Your task to perform on an android device: Open the phone app and click the voicemail tab. Image 0: 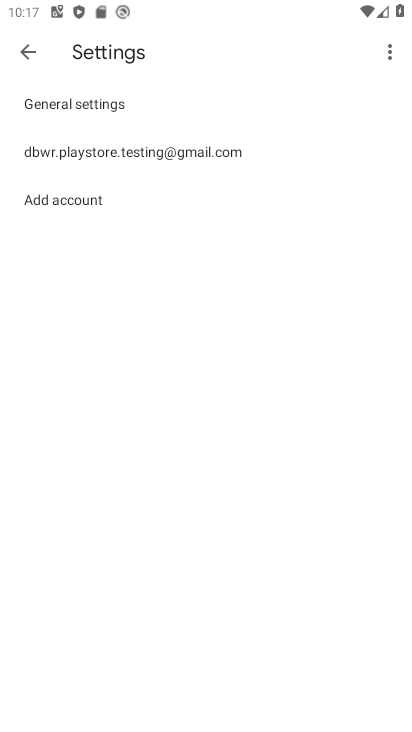
Step 0: press home button
Your task to perform on an android device: Open the phone app and click the voicemail tab. Image 1: 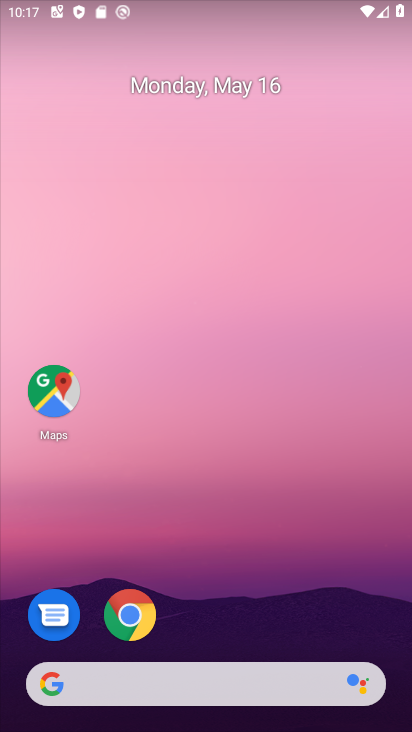
Step 1: drag from (275, 714) to (274, 299)
Your task to perform on an android device: Open the phone app and click the voicemail tab. Image 2: 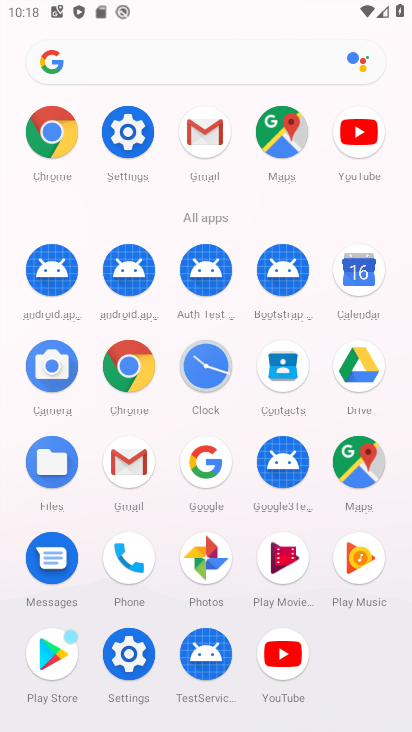
Step 2: click (107, 558)
Your task to perform on an android device: Open the phone app and click the voicemail tab. Image 3: 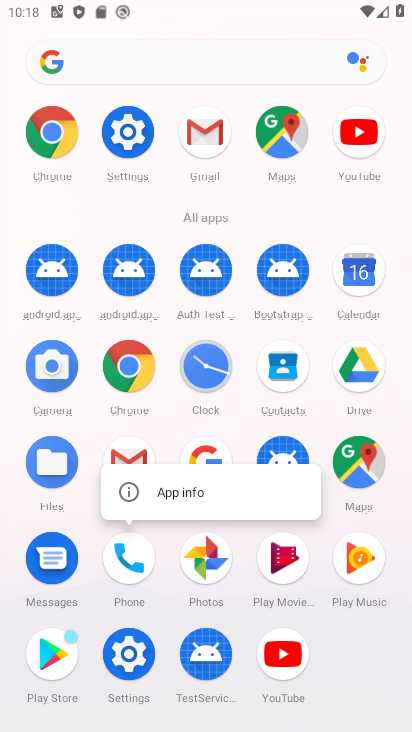
Step 3: click (135, 567)
Your task to perform on an android device: Open the phone app and click the voicemail tab. Image 4: 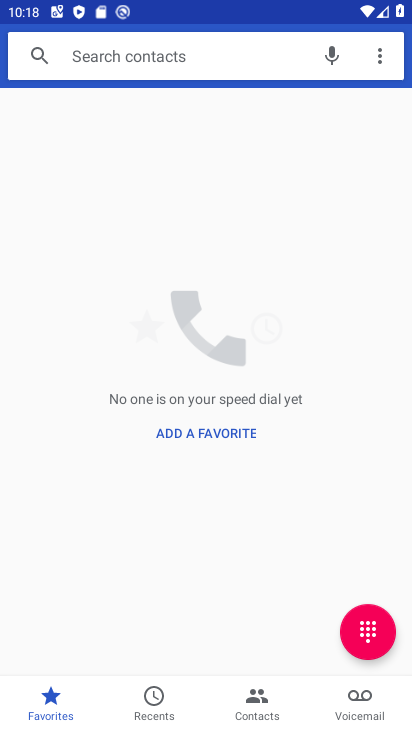
Step 4: click (337, 707)
Your task to perform on an android device: Open the phone app and click the voicemail tab. Image 5: 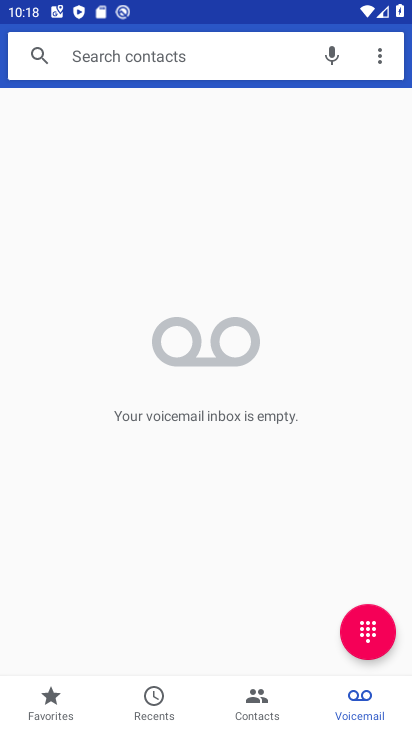
Step 5: task complete